Your task to perform on an android device: Go to Amazon Image 0: 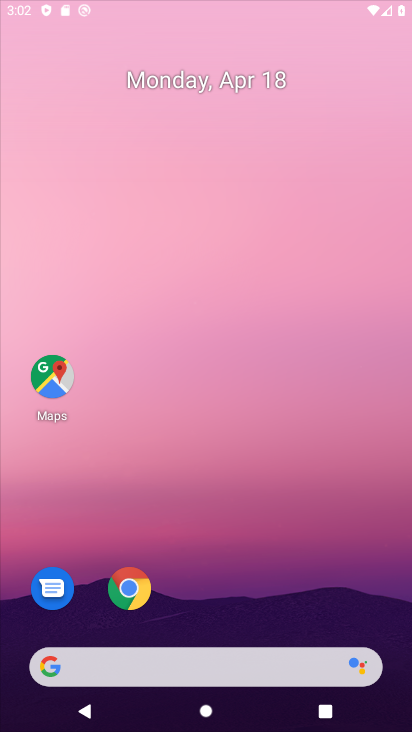
Step 0: click (410, 440)
Your task to perform on an android device: Go to Amazon Image 1: 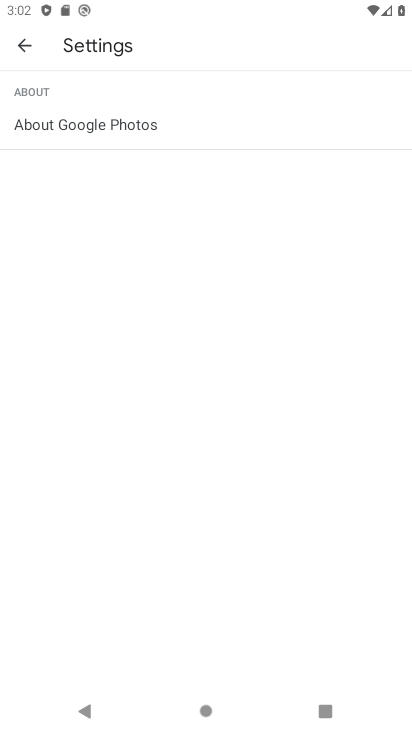
Step 1: press back button
Your task to perform on an android device: Go to Amazon Image 2: 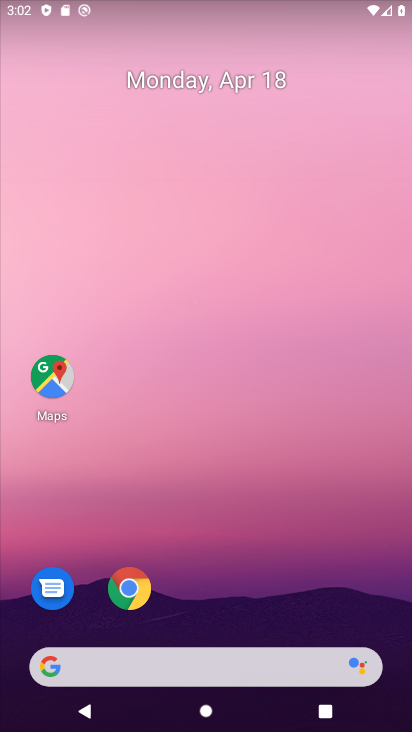
Step 2: click (124, 583)
Your task to perform on an android device: Go to Amazon Image 3: 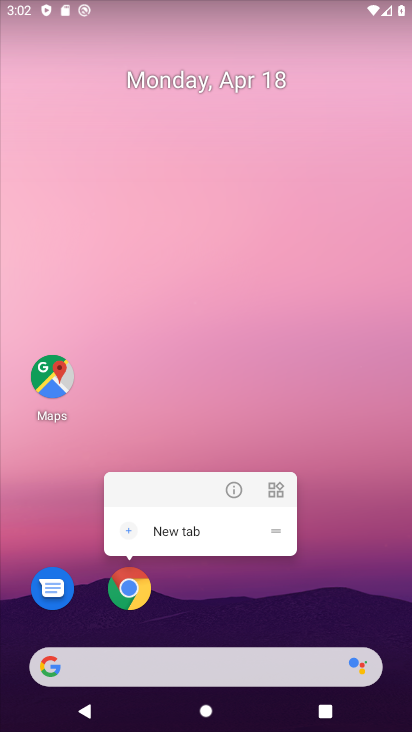
Step 3: click (137, 596)
Your task to perform on an android device: Go to Amazon Image 4: 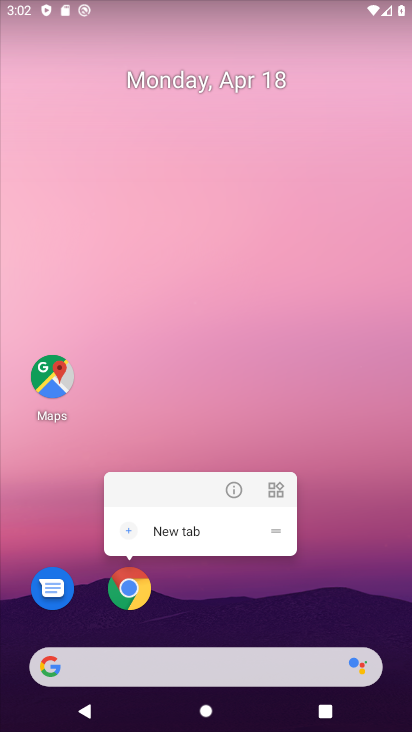
Step 4: click (138, 596)
Your task to perform on an android device: Go to Amazon Image 5: 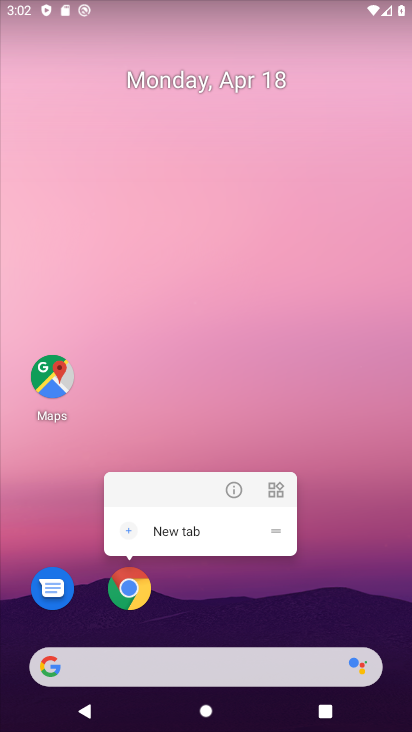
Step 5: click (128, 600)
Your task to perform on an android device: Go to Amazon Image 6: 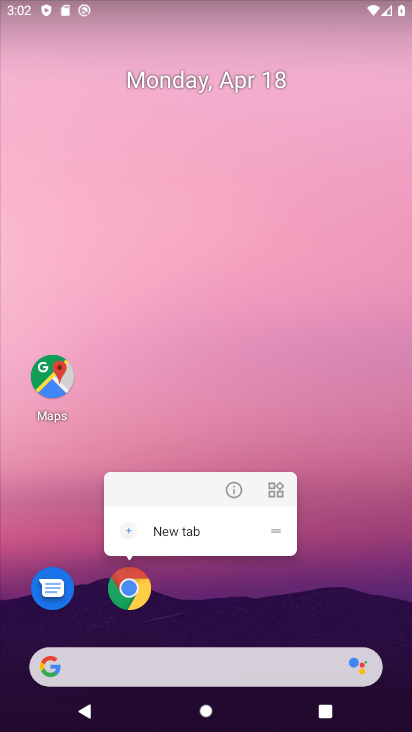
Step 6: click (123, 586)
Your task to perform on an android device: Go to Amazon Image 7: 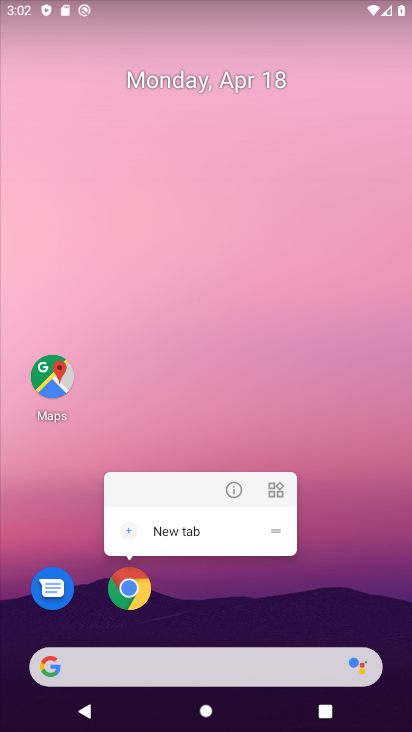
Step 7: click (123, 593)
Your task to perform on an android device: Go to Amazon Image 8: 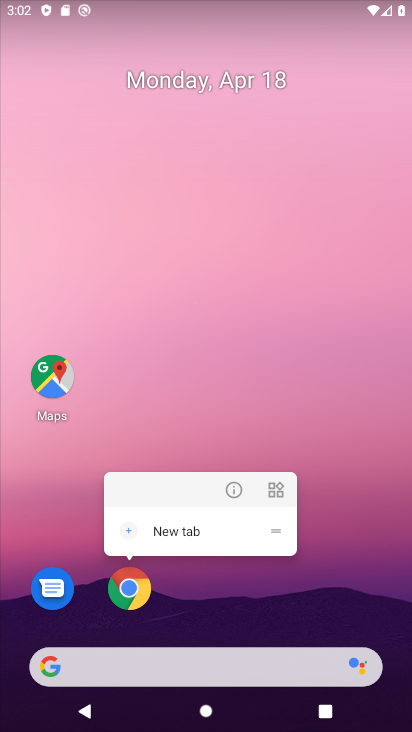
Step 8: click (127, 607)
Your task to perform on an android device: Go to Amazon Image 9: 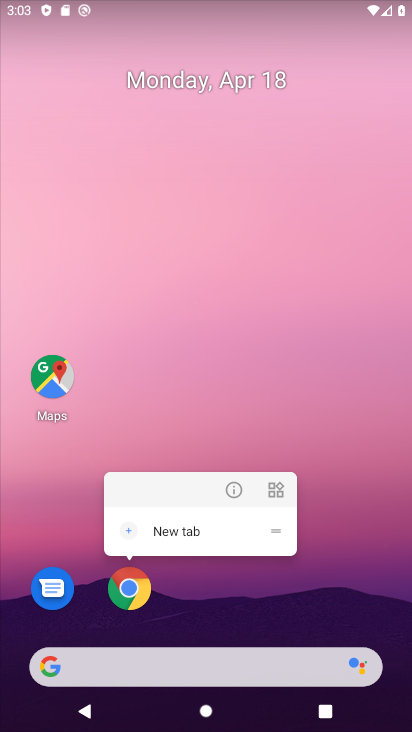
Step 9: click (137, 599)
Your task to perform on an android device: Go to Amazon Image 10: 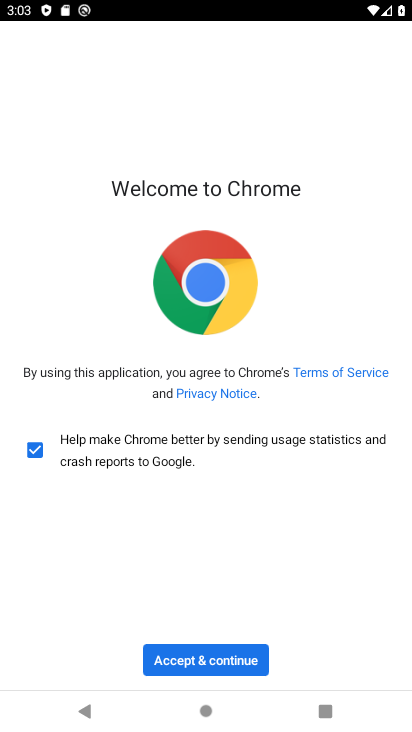
Step 10: click (247, 669)
Your task to perform on an android device: Go to Amazon Image 11: 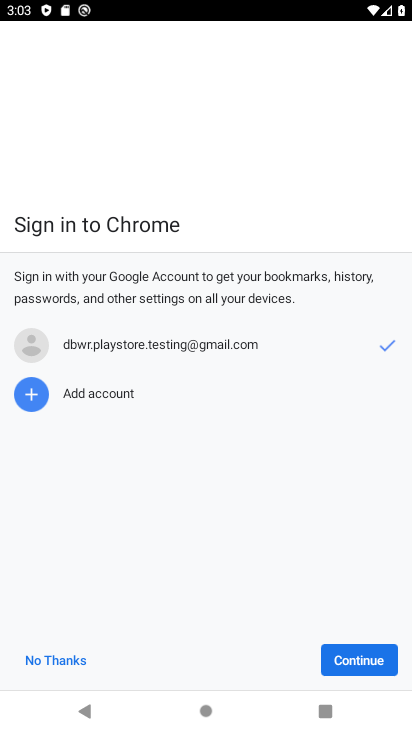
Step 11: click (357, 664)
Your task to perform on an android device: Go to Amazon Image 12: 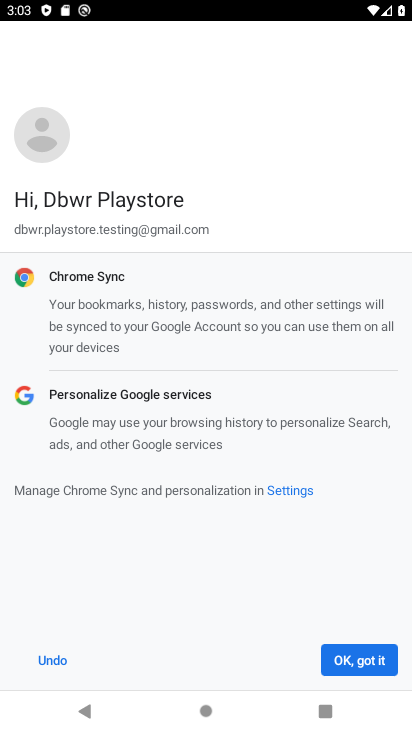
Step 12: click (357, 664)
Your task to perform on an android device: Go to Amazon Image 13: 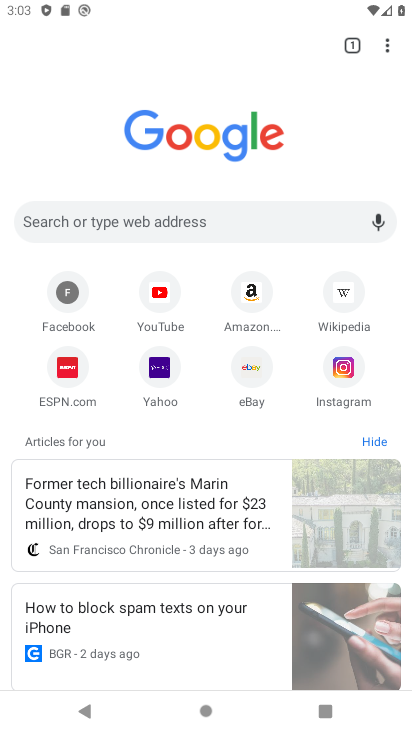
Step 13: click (252, 291)
Your task to perform on an android device: Go to Amazon Image 14: 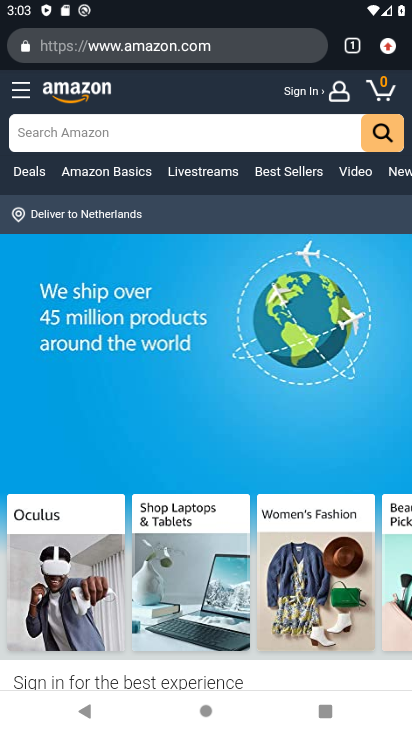
Step 14: task complete